Your task to perform on an android device: Search for "asus zenbook" on walmart.com, select the first entry, and add it to the cart. Image 0: 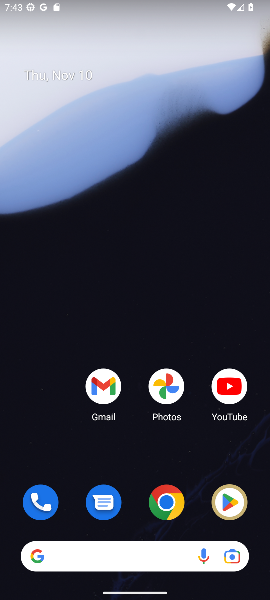
Step 0: drag from (128, 505) to (127, 115)
Your task to perform on an android device: Search for "asus zenbook" on walmart.com, select the first entry, and add it to the cart. Image 1: 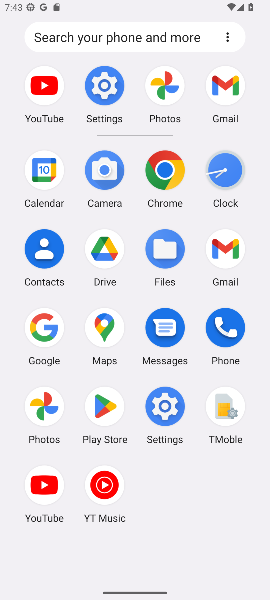
Step 1: click (44, 326)
Your task to perform on an android device: Search for "asus zenbook" on walmart.com, select the first entry, and add it to the cart. Image 2: 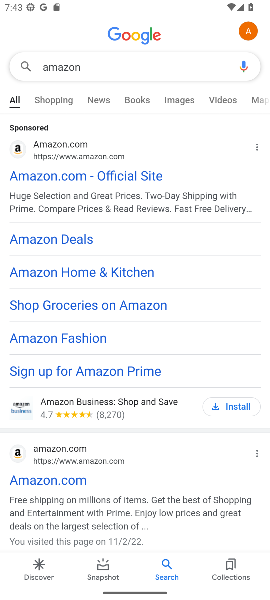
Step 2: click (103, 66)
Your task to perform on an android device: Search for "asus zenbook" on walmart.com, select the first entry, and add it to the cart. Image 3: 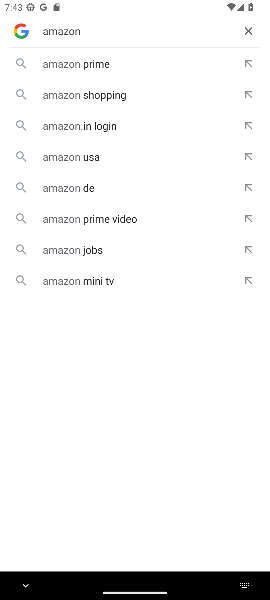
Step 3: click (250, 31)
Your task to perform on an android device: Search for "asus zenbook" on walmart.com, select the first entry, and add it to the cart. Image 4: 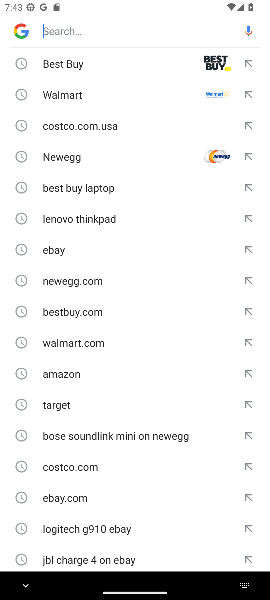
Step 4: type "walmart.com"
Your task to perform on an android device: Search for "asus zenbook" on walmart.com, select the first entry, and add it to the cart. Image 5: 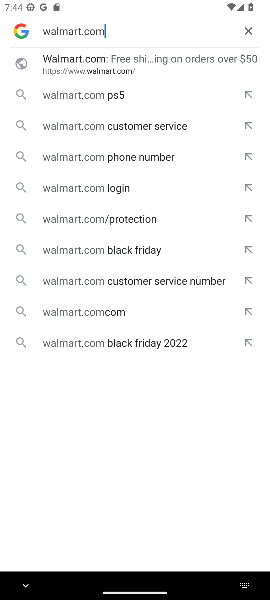
Step 5: click (109, 71)
Your task to perform on an android device: Search for "asus zenbook" on walmart.com, select the first entry, and add it to the cart. Image 6: 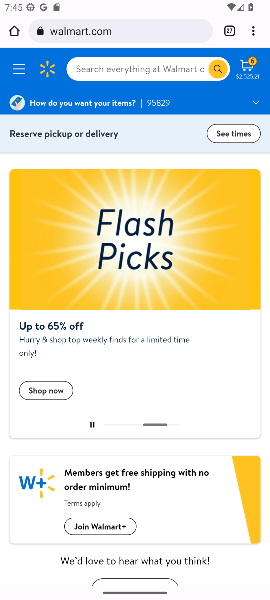
Step 6: click (112, 72)
Your task to perform on an android device: Search for "asus zenbook" on walmart.com, select the first entry, and add it to the cart. Image 7: 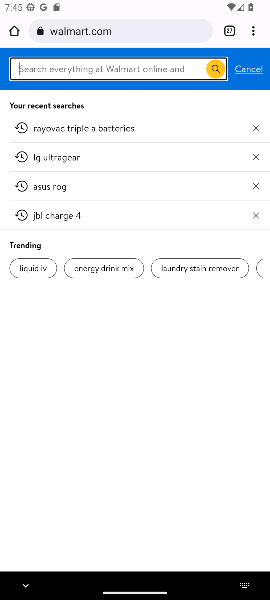
Step 7: type "asus zenbook"
Your task to perform on an android device: Search for "asus zenbook" on walmart.com, select the first entry, and add it to the cart. Image 8: 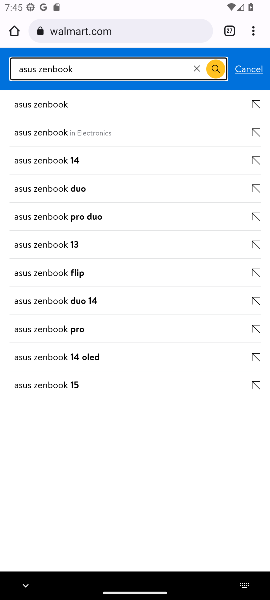
Step 8: click (47, 105)
Your task to perform on an android device: Search for "asus zenbook" on walmart.com, select the first entry, and add it to the cart. Image 9: 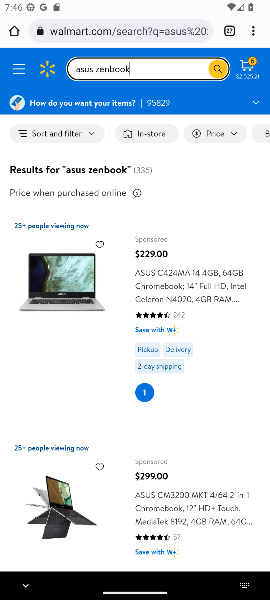
Step 9: click (143, 395)
Your task to perform on an android device: Search for "asus zenbook" on walmart.com, select the first entry, and add it to the cart. Image 10: 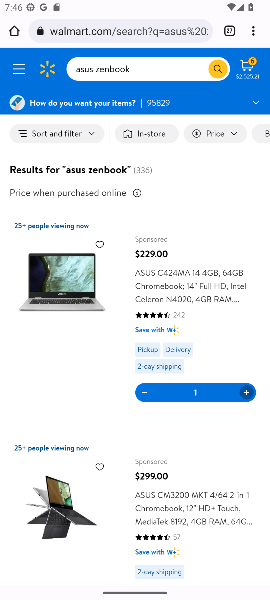
Step 10: task complete